Your task to perform on an android device: install app "Nova Launcher" Image 0: 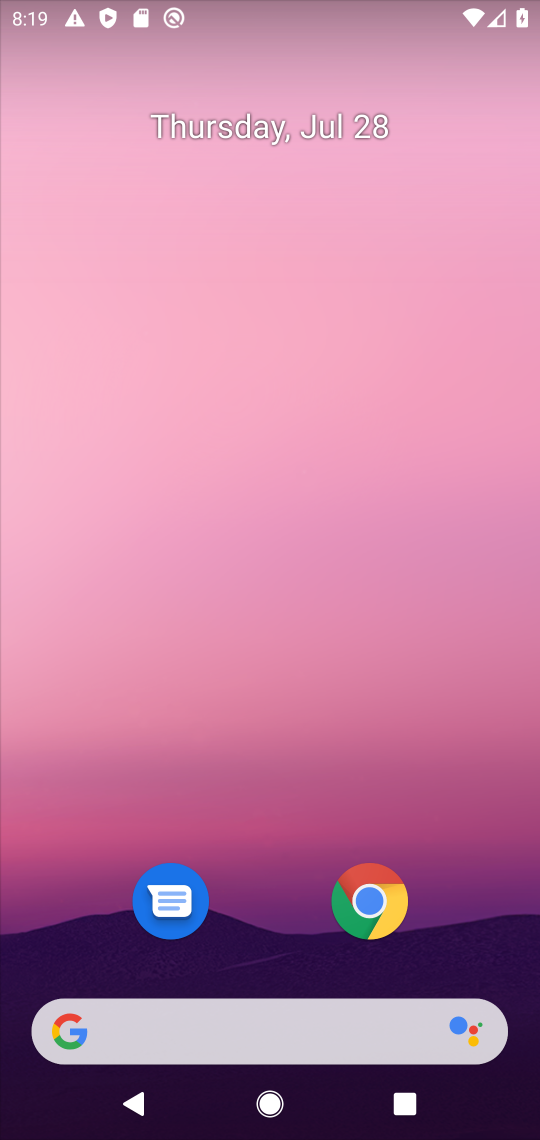
Step 0: drag from (114, 655) to (528, 590)
Your task to perform on an android device: install app "Nova Launcher" Image 1: 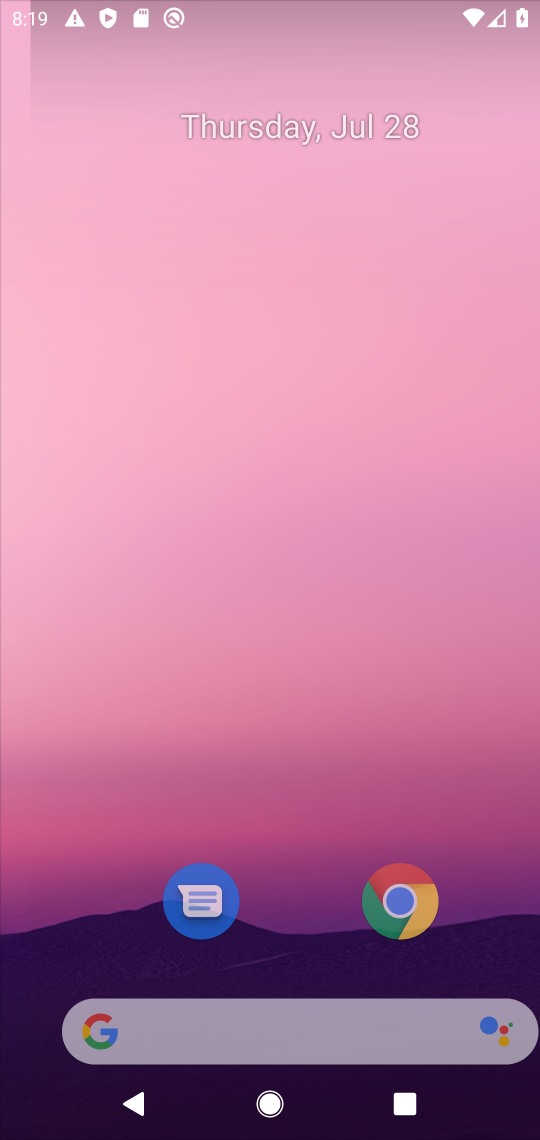
Step 1: drag from (515, 611) to (6, 476)
Your task to perform on an android device: install app "Nova Launcher" Image 2: 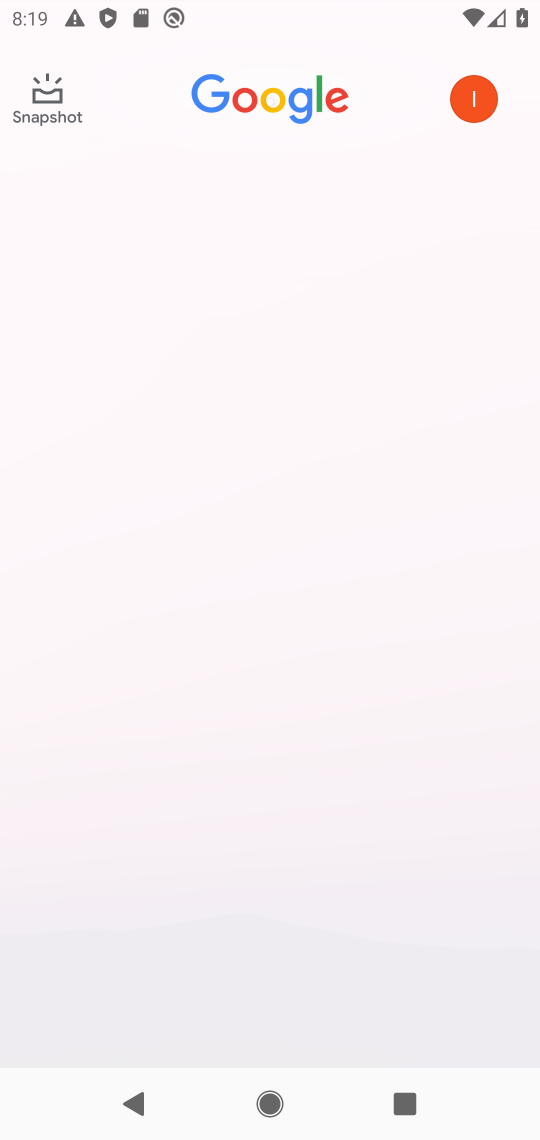
Step 2: press home button
Your task to perform on an android device: install app "Nova Launcher" Image 3: 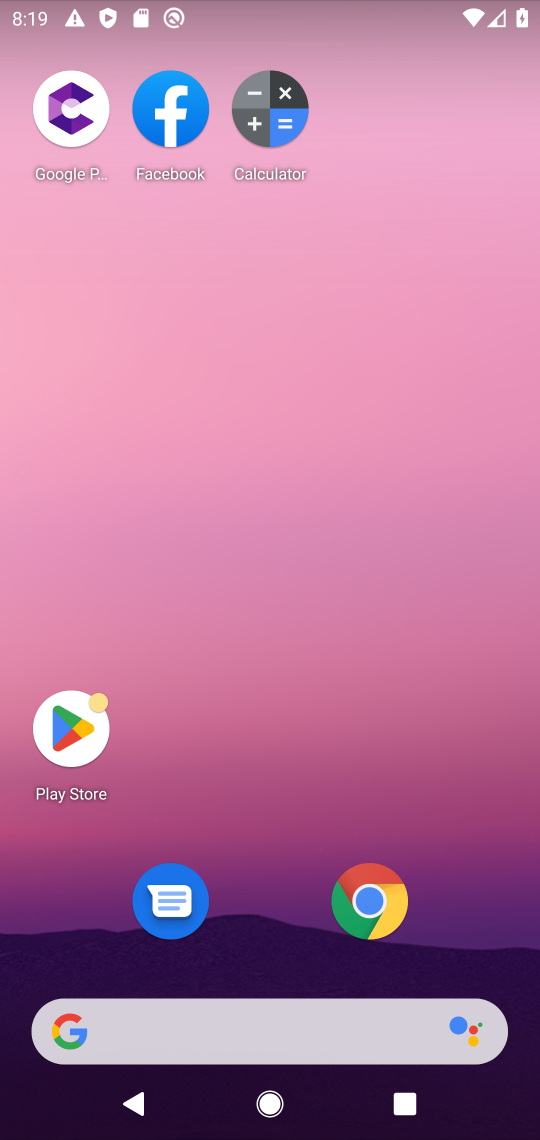
Step 3: click (48, 745)
Your task to perform on an android device: install app "Nova Launcher" Image 4: 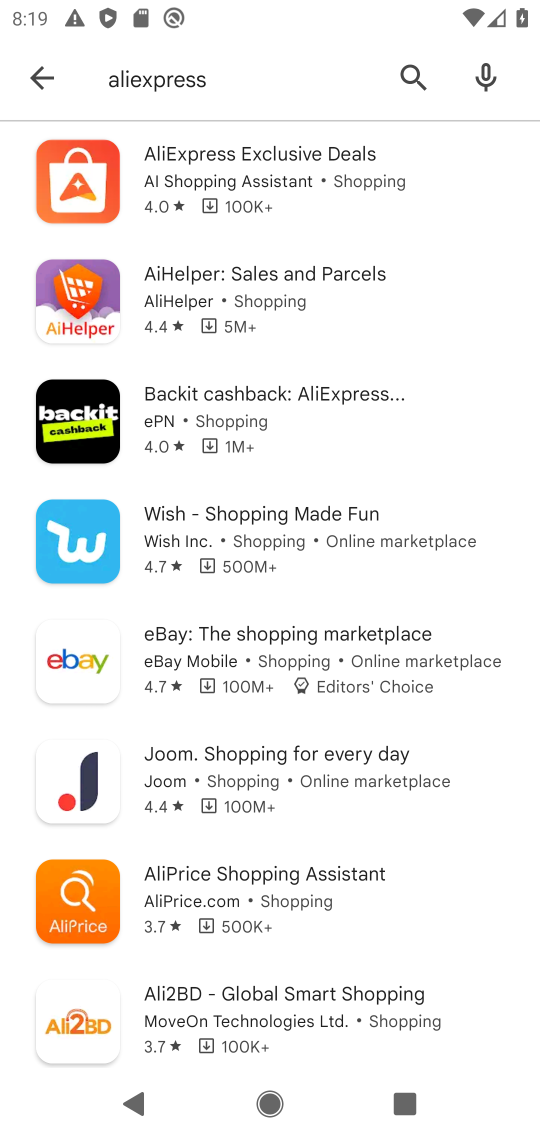
Step 4: click (415, 73)
Your task to perform on an android device: install app "Nova Launcher" Image 5: 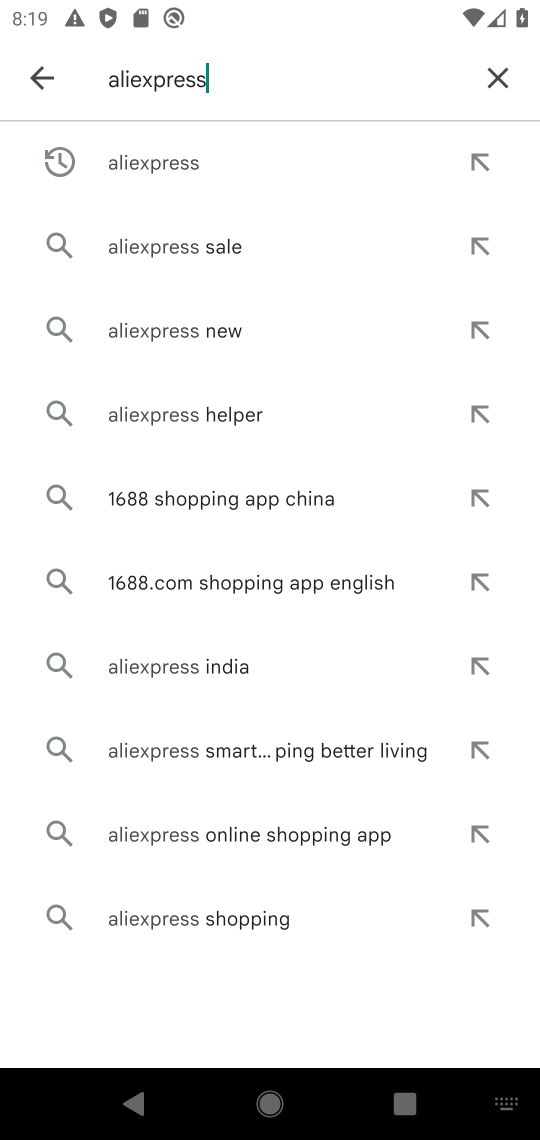
Step 5: click (491, 77)
Your task to perform on an android device: install app "Nova Launcher" Image 6: 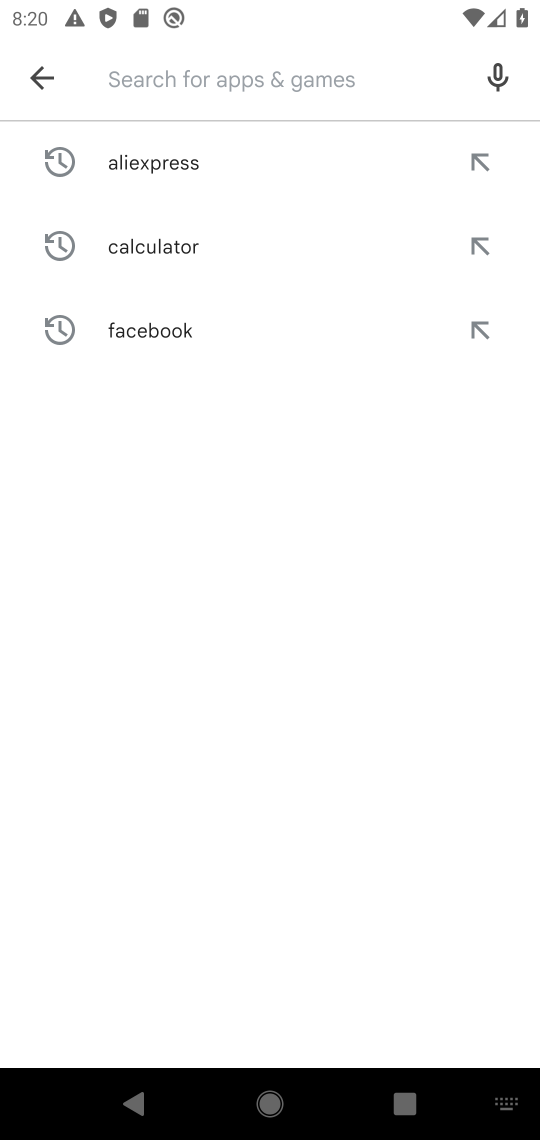
Step 6: type "Nova Launcher"
Your task to perform on an android device: install app "Nova Launcher" Image 7: 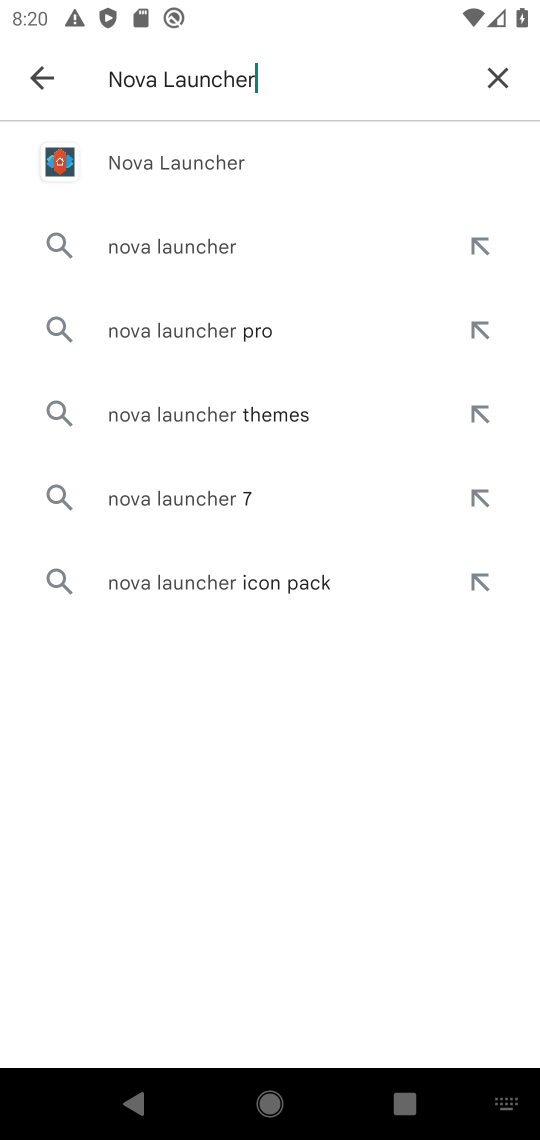
Step 7: click (224, 160)
Your task to perform on an android device: install app "Nova Launcher" Image 8: 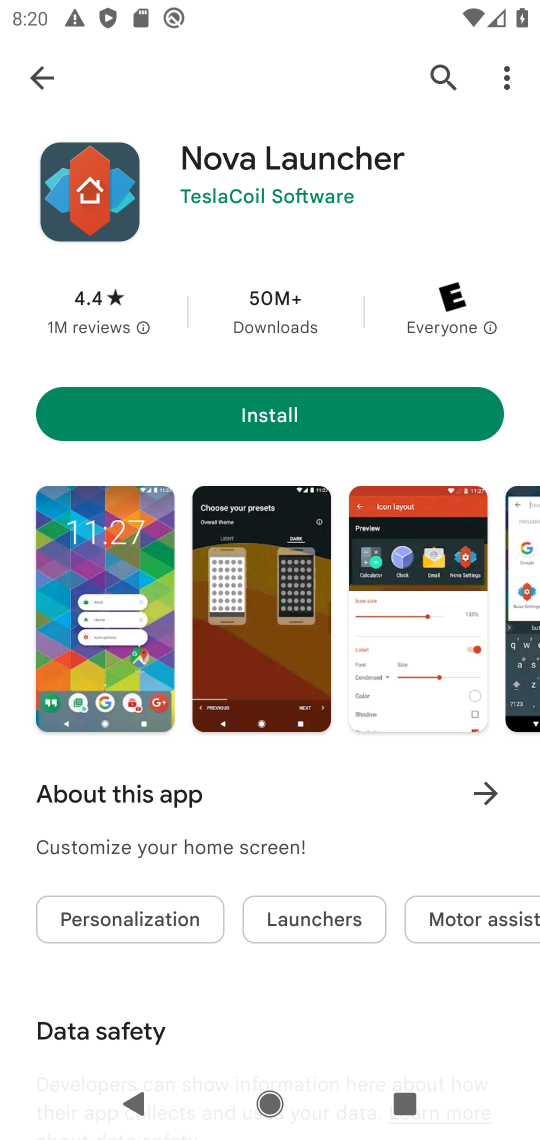
Step 8: click (378, 417)
Your task to perform on an android device: install app "Nova Launcher" Image 9: 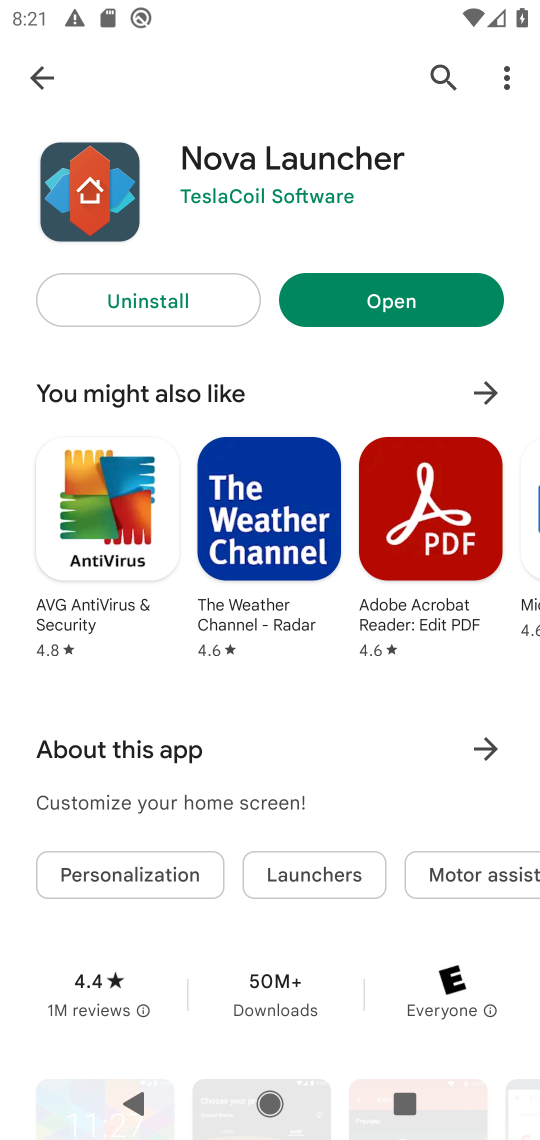
Step 9: click (352, 305)
Your task to perform on an android device: install app "Nova Launcher" Image 10: 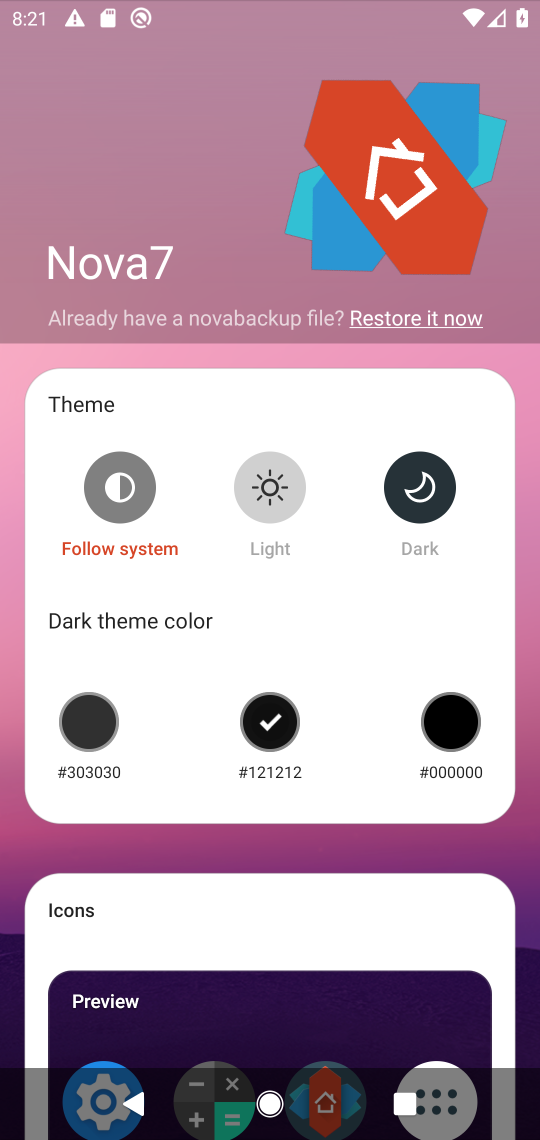
Step 10: task complete